Your task to perform on an android device: turn on translation in the chrome app Image 0: 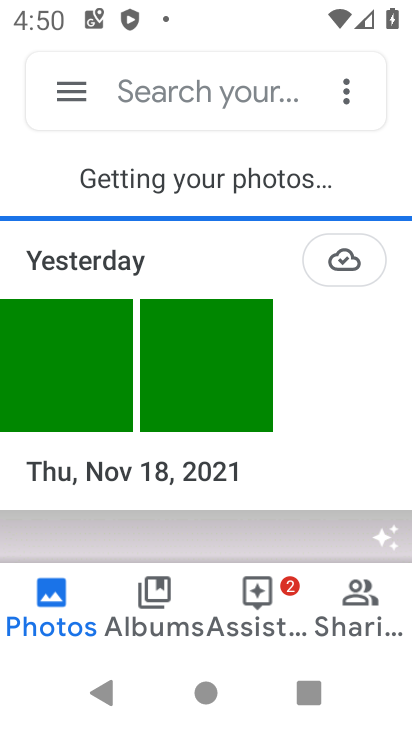
Step 0: press home button
Your task to perform on an android device: turn on translation in the chrome app Image 1: 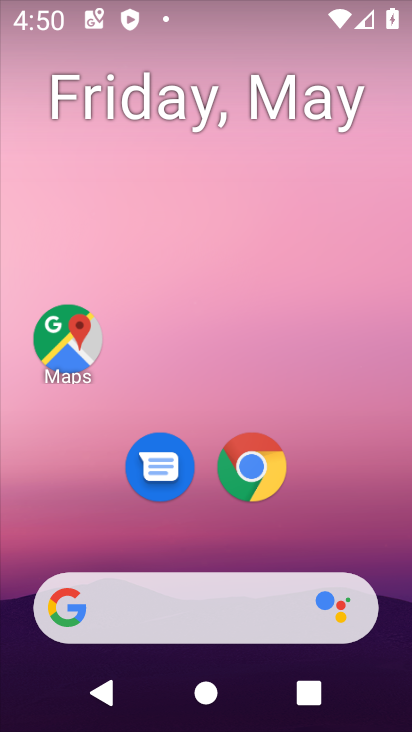
Step 1: click (249, 456)
Your task to perform on an android device: turn on translation in the chrome app Image 2: 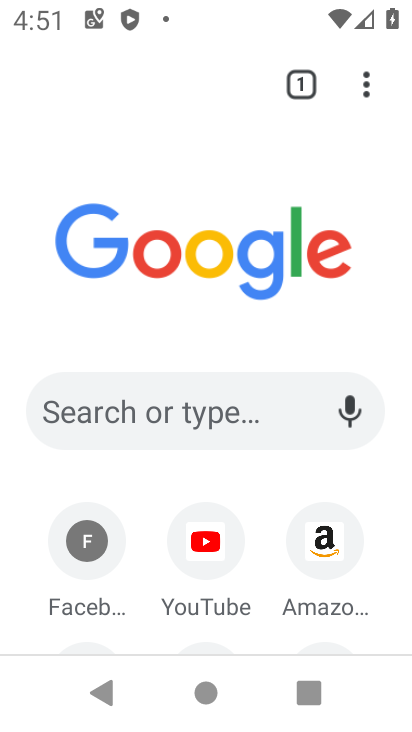
Step 2: click (377, 76)
Your task to perform on an android device: turn on translation in the chrome app Image 3: 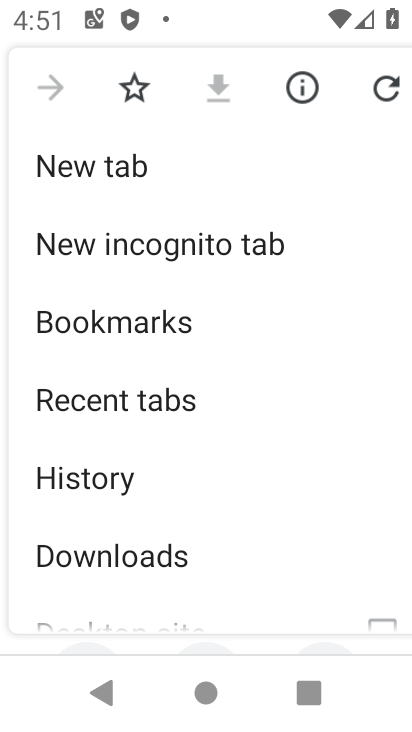
Step 3: drag from (137, 572) to (178, 235)
Your task to perform on an android device: turn on translation in the chrome app Image 4: 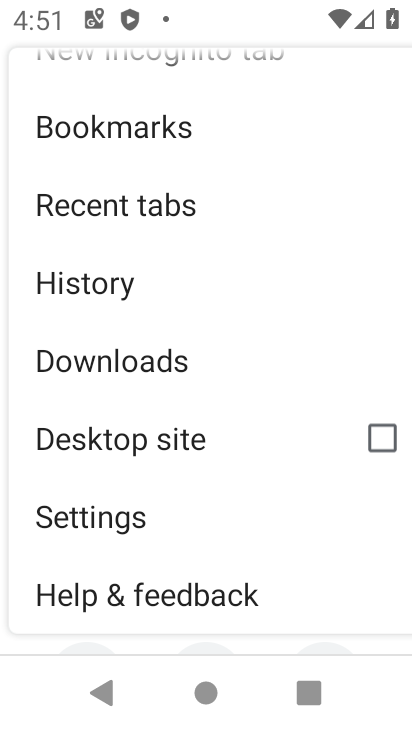
Step 4: click (99, 506)
Your task to perform on an android device: turn on translation in the chrome app Image 5: 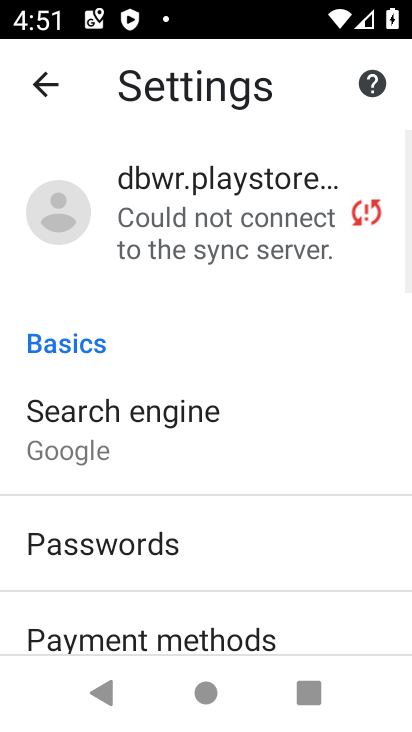
Step 5: drag from (285, 555) to (273, 115)
Your task to perform on an android device: turn on translation in the chrome app Image 6: 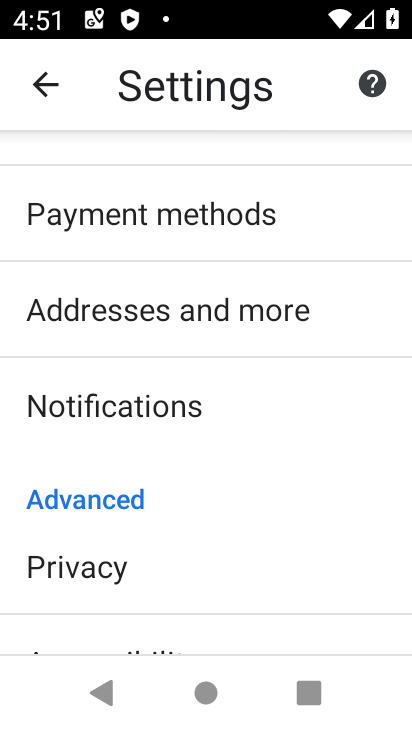
Step 6: drag from (183, 570) to (239, 176)
Your task to perform on an android device: turn on translation in the chrome app Image 7: 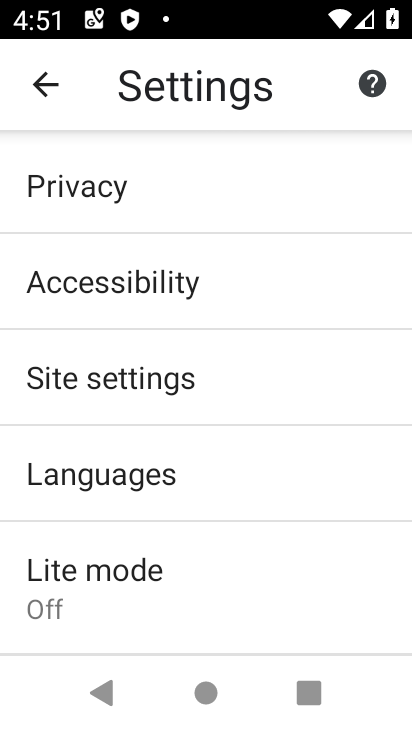
Step 7: click (155, 480)
Your task to perform on an android device: turn on translation in the chrome app Image 8: 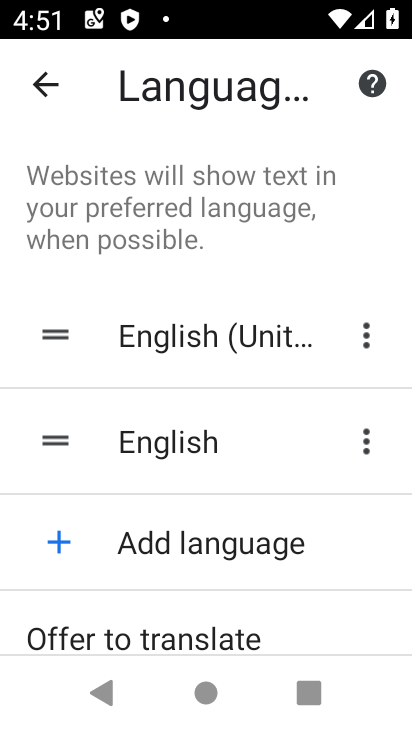
Step 8: task complete